Your task to perform on an android device: Go to Yahoo.com Image 0: 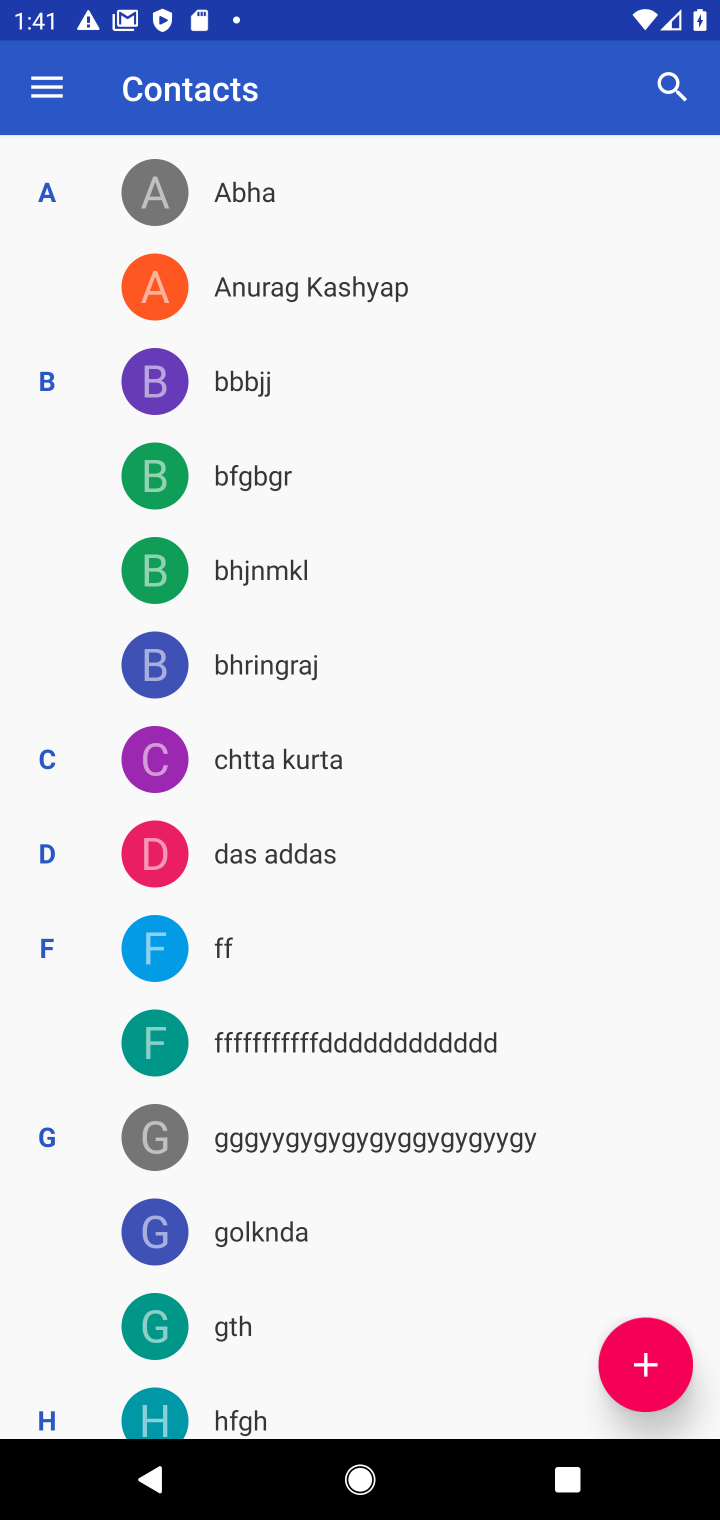
Step 0: press home button
Your task to perform on an android device: Go to Yahoo.com Image 1: 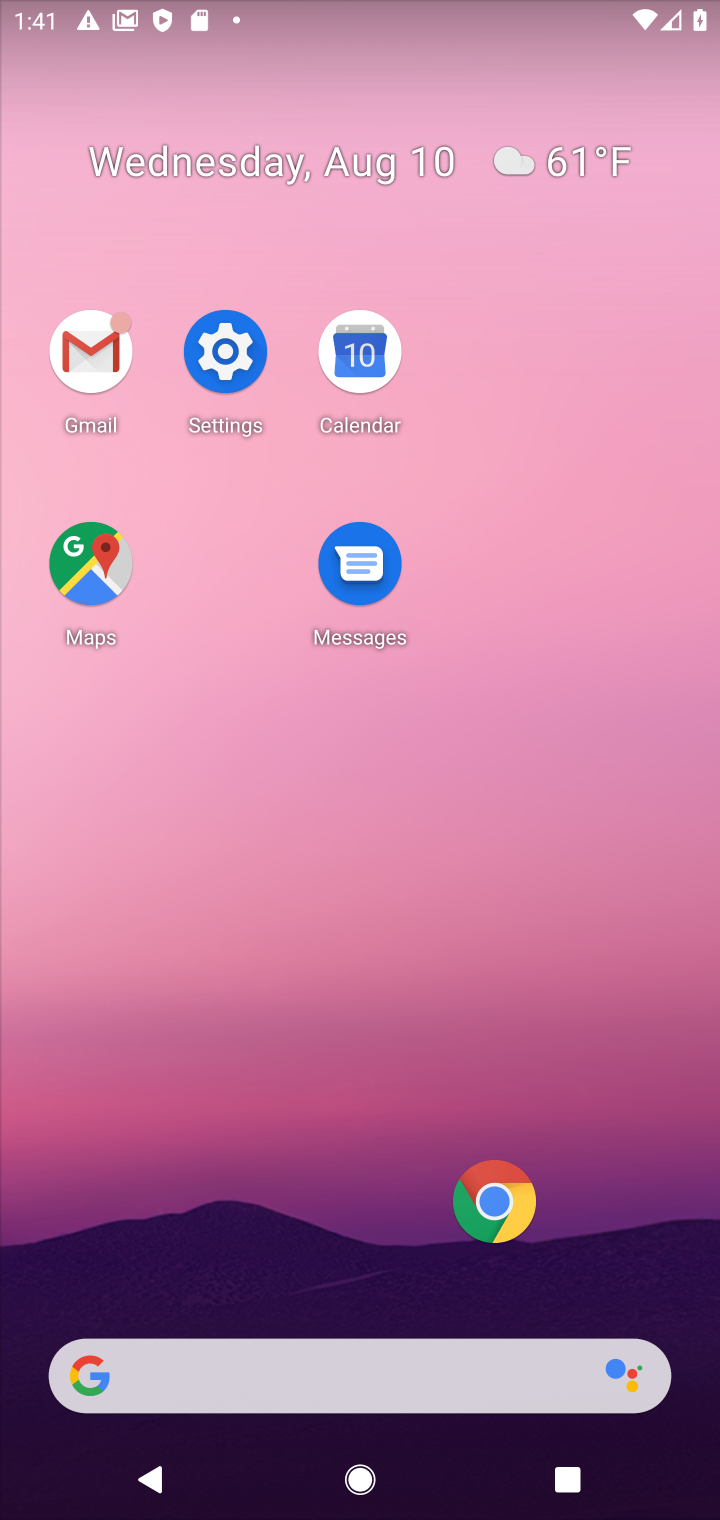
Step 1: click (508, 1212)
Your task to perform on an android device: Go to Yahoo.com Image 2: 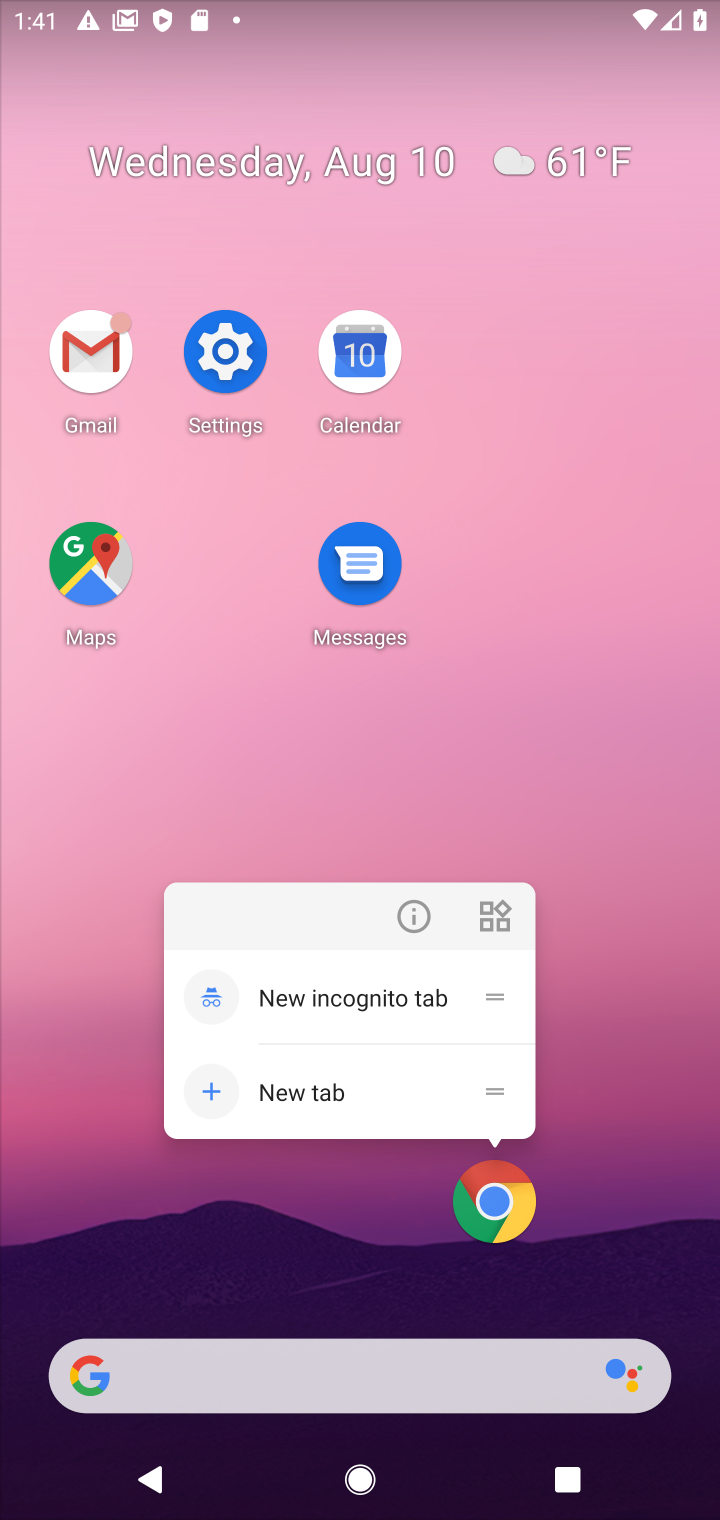
Step 2: click (517, 1173)
Your task to perform on an android device: Go to Yahoo.com Image 3: 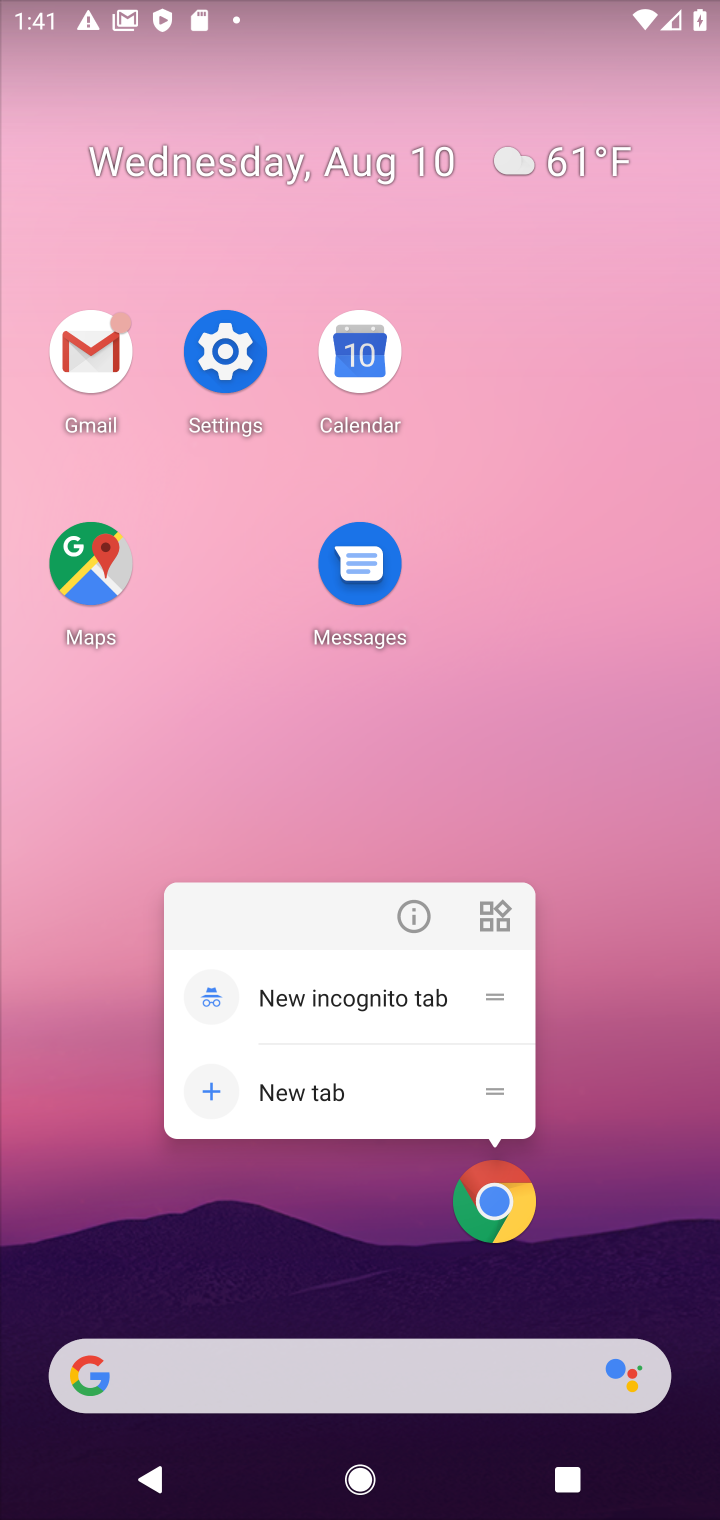
Step 3: click (484, 1230)
Your task to perform on an android device: Go to Yahoo.com Image 4: 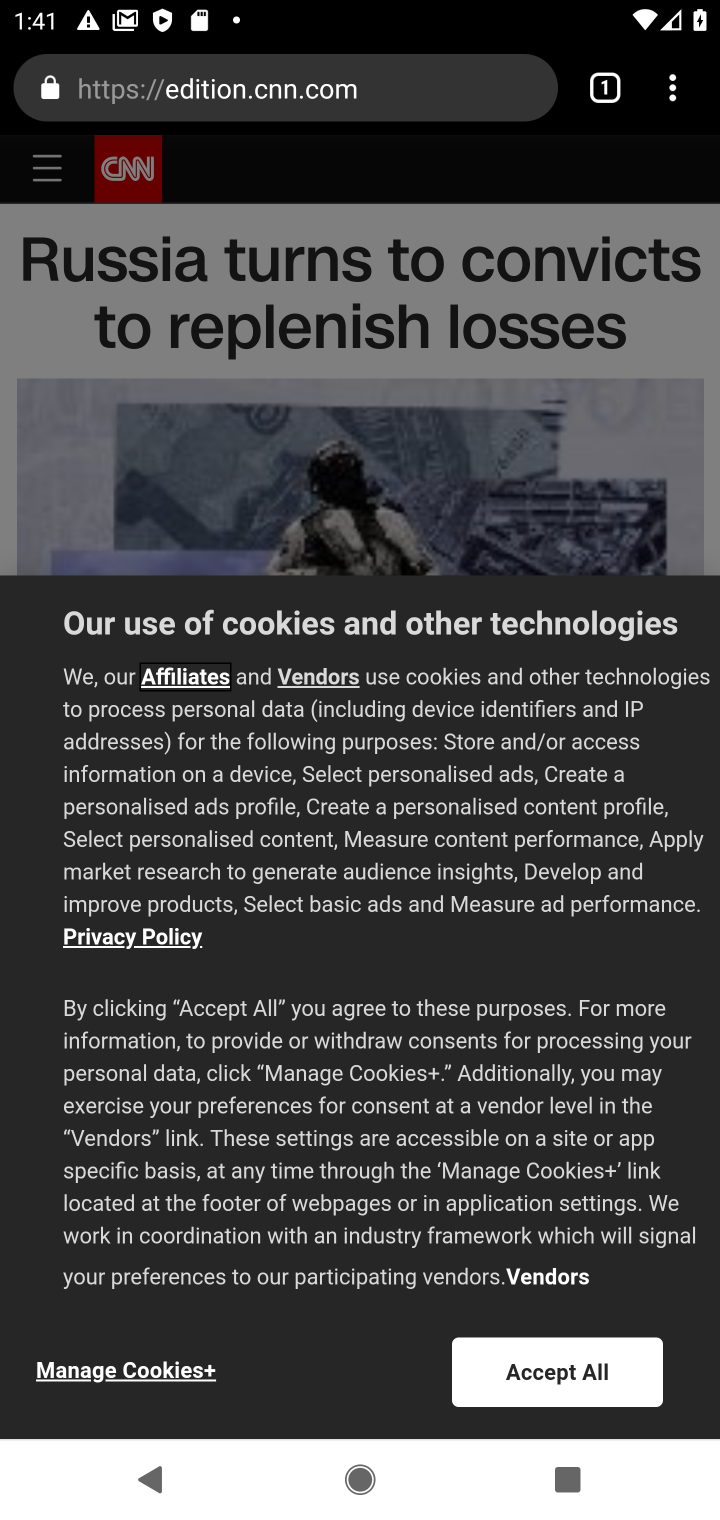
Step 4: click (592, 101)
Your task to perform on an android device: Go to Yahoo.com Image 5: 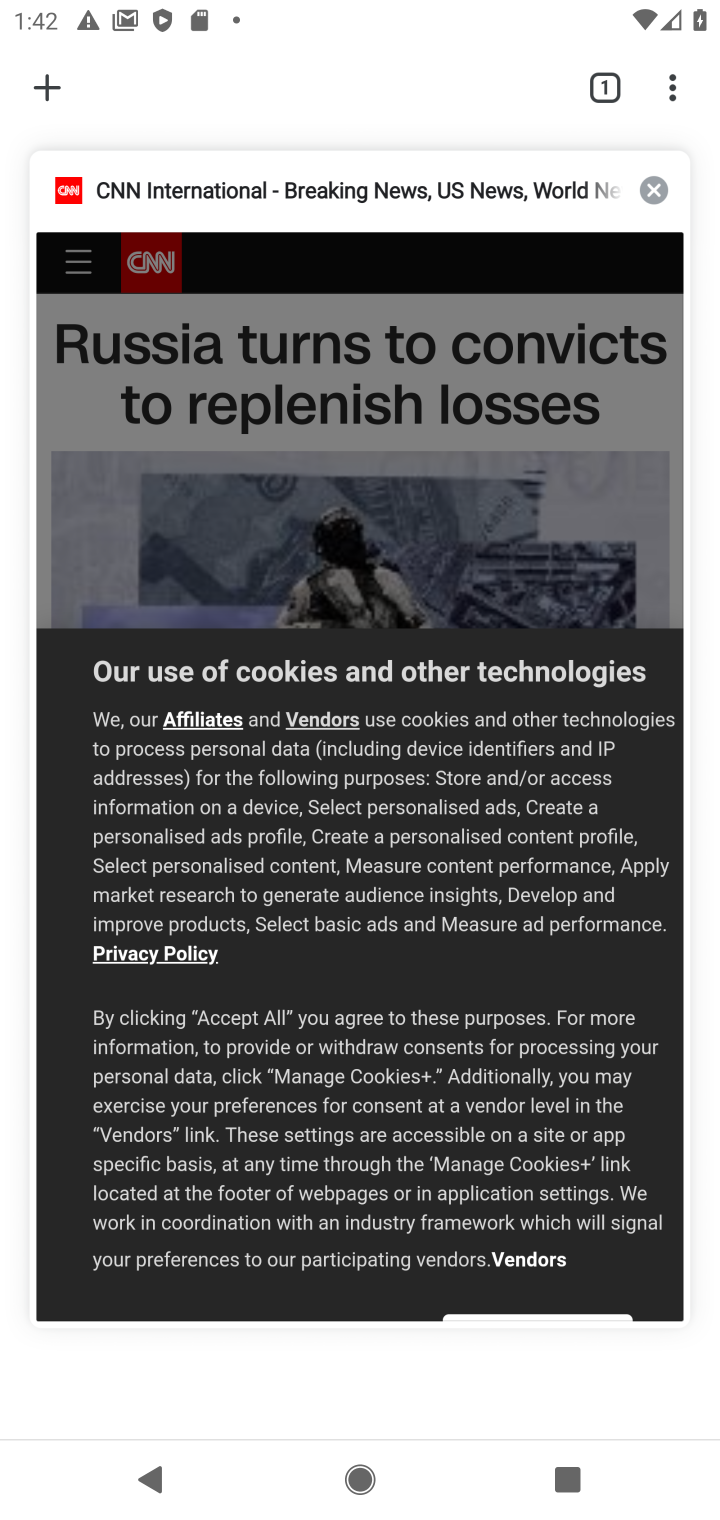
Step 5: click (69, 97)
Your task to perform on an android device: Go to Yahoo.com Image 6: 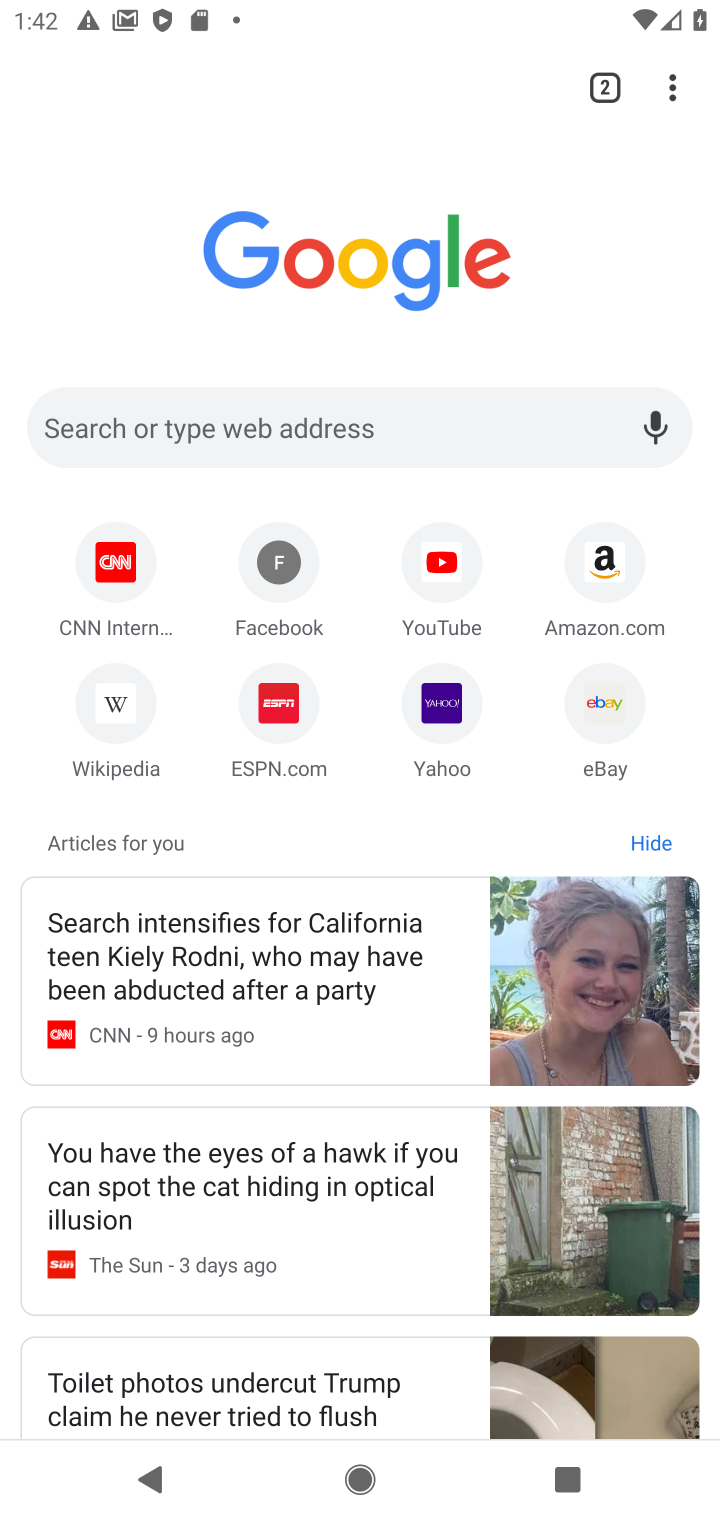
Step 6: click (424, 707)
Your task to perform on an android device: Go to Yahoo.com Image 7: 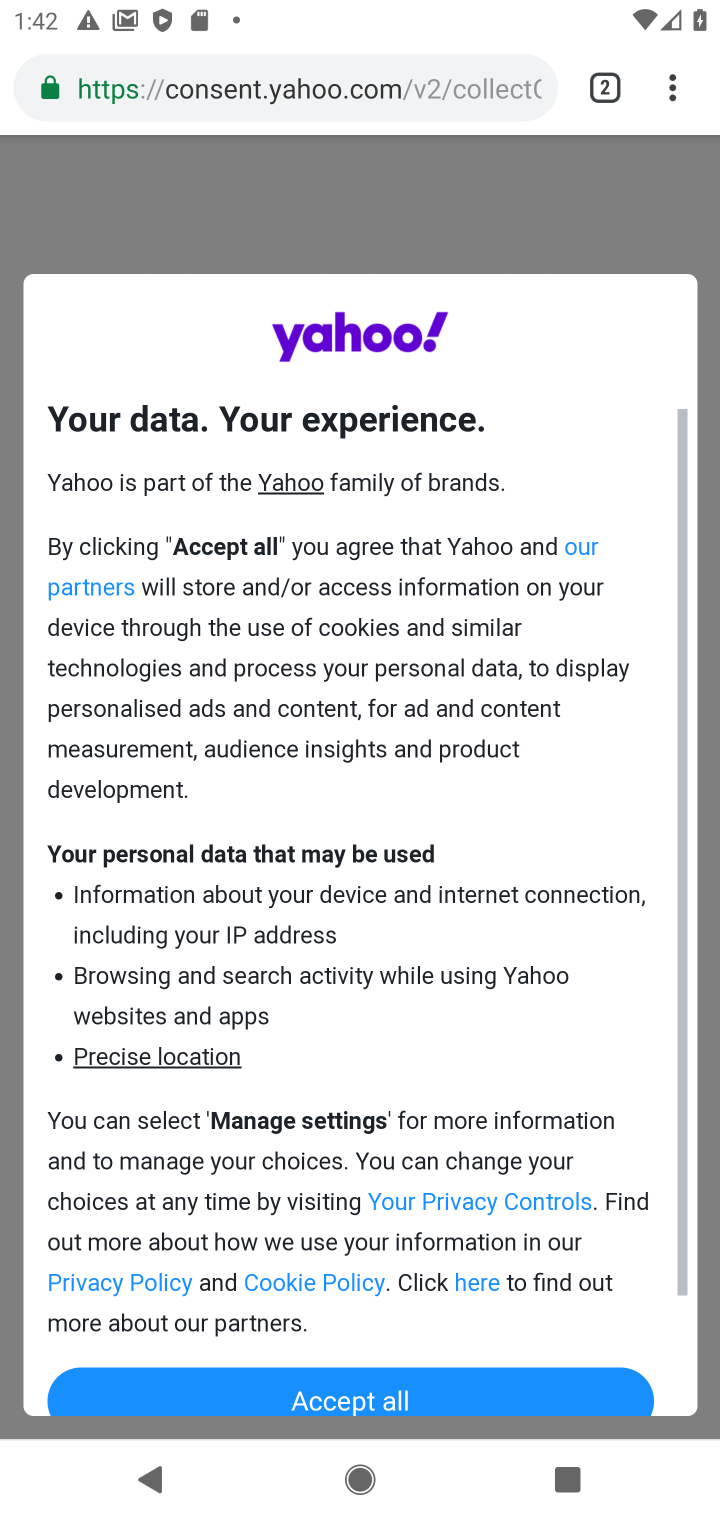
Step 7: task complete